Your task to perform on an android device: turn vacation reply on in the gmail app Image 0: 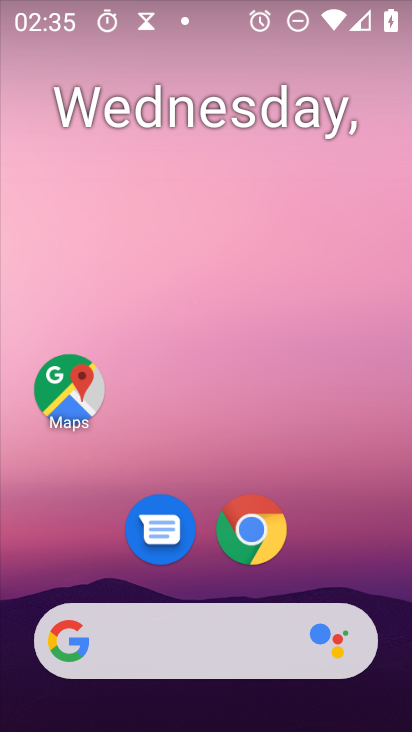
Step 0: drag from (344, 639) to (409, 5)
Your task to perform on an android device: turn vacation reply on in the gmail app Image 1: 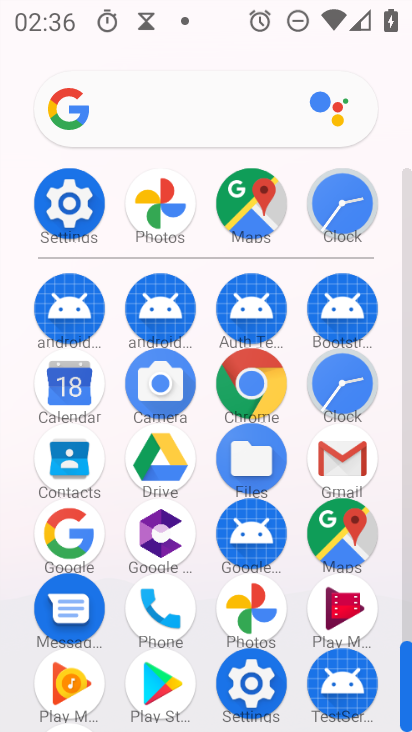
Step 1: click (353, 450)
Your task to perform on an android device: turn vacation reply on in the gmail app Image 2: 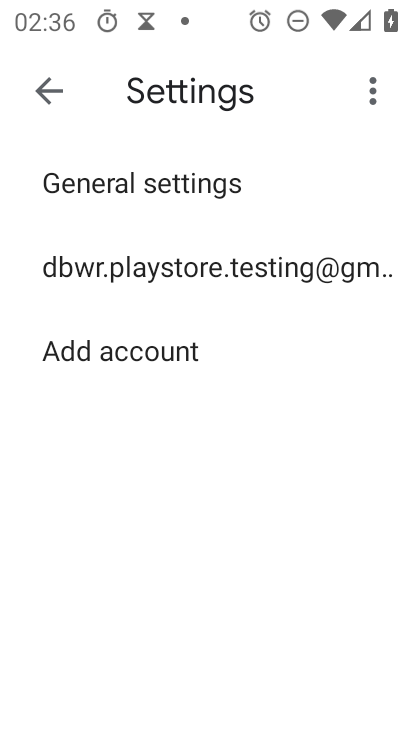
Step 2: click (216, 276)
Your task to perform on an android device: turn vacation reply on in the gmail app Image 3: 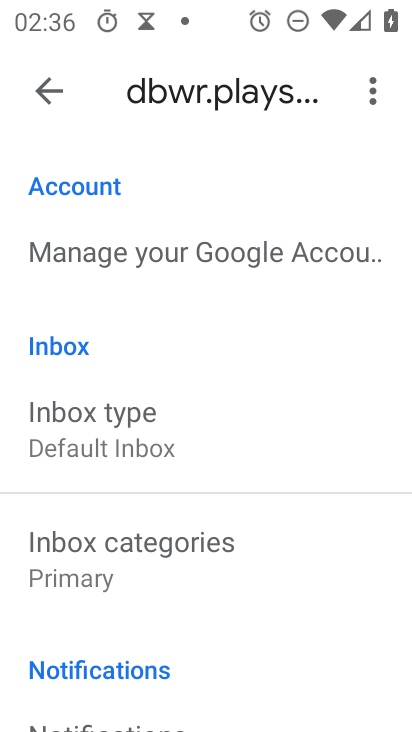
Step 3: drag from (242, 686) to (218, 41)
Your task to perform on an android device: turn vacation reply on in the gmail app Image 4: 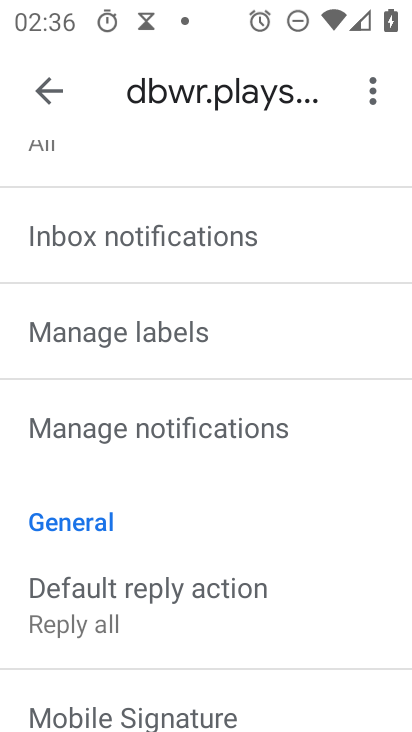
Step 4: drag from (266, 221) to (300, 727)
Your task to perform on an android device: turn vacation reply on in the gmail app Image 5: 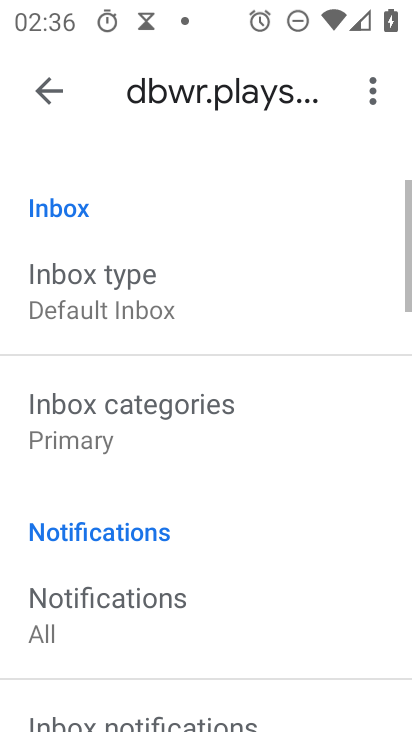
Step 5: drag from (263, 676) to (318, 102)
Your task to perform on an android device: turn vacation reply on in the gmail app Image 6: 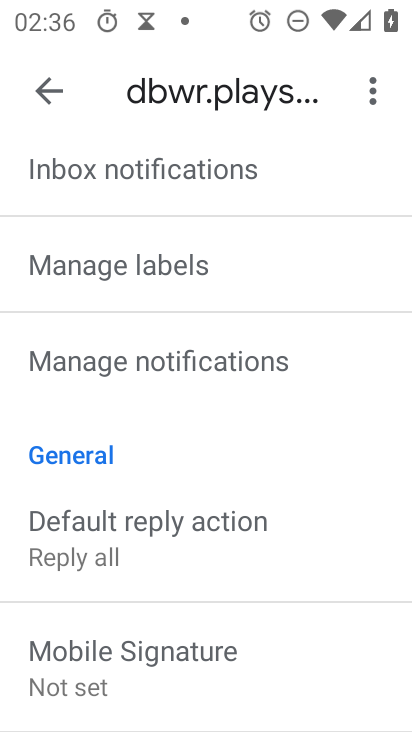
Step 6: drag from (260, 701) to (292, 154)
Your task to perform on an android device: turn vacation reply on in the gmail app Image 7: 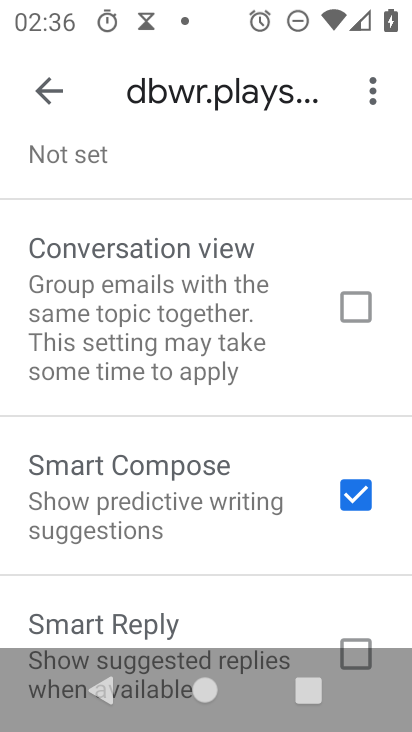
Step 7: drag from (238, 583) to (285, 131)
Your task to perform on an android device: turn vacation reply on in the gmail app Image 8: 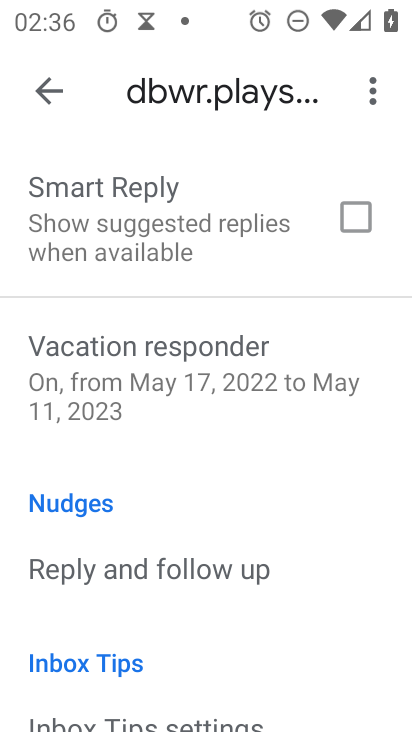
Step 8: click (294, 364)
Your task to perform on an android device: turn vacation reply on in the gmail app Image 9: 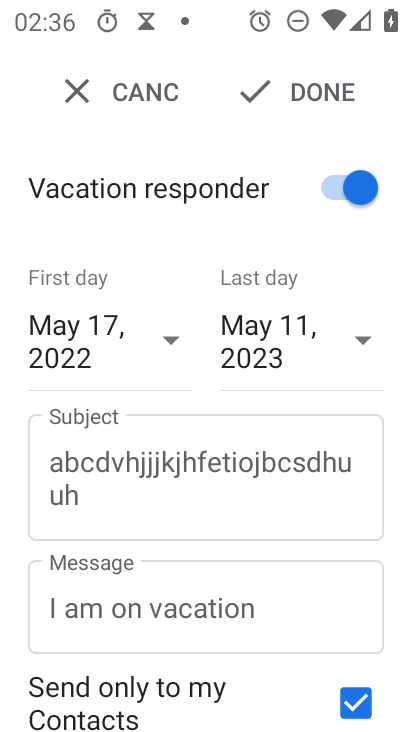
Step 9: click (296, 79)
Your task to perform on an android device: turn vacation reply on in the gmail app Image 10: 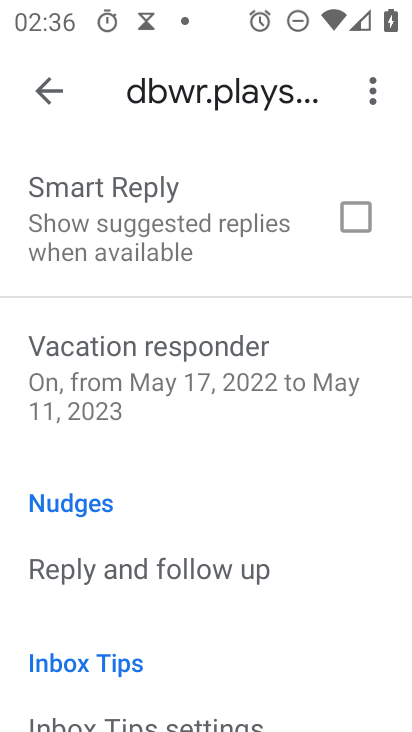
Step 10: task complete